Your task to perform on an android device: Open calendar and show me the first week of next month Image 0: 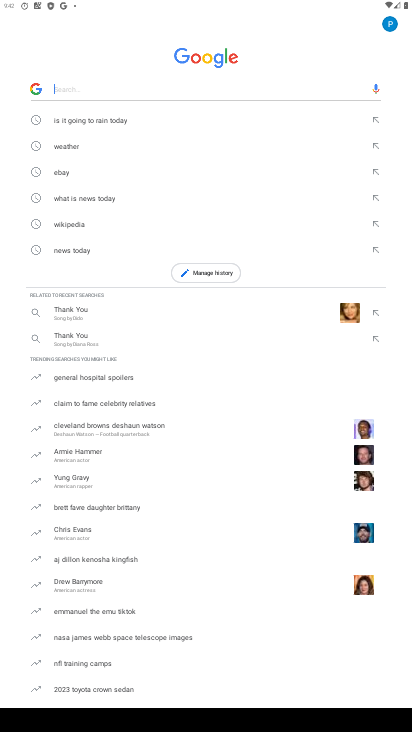
Step 0: press home button
Your task to perform on an android device: Open calendar and show me the first week of next month Image 1: 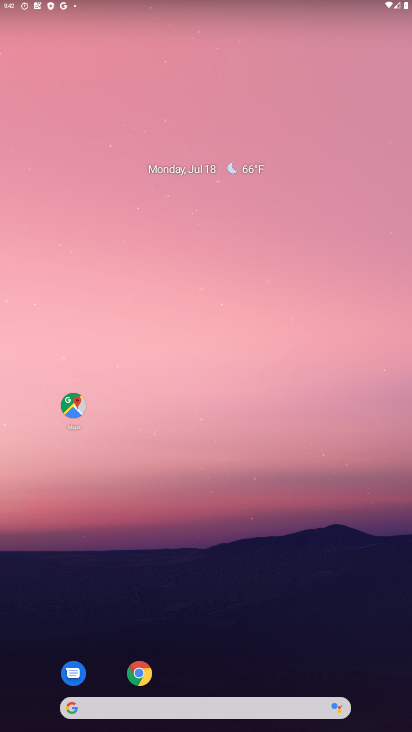
Step 1: drag from (214, 651) to (250, 61)
Your task to perform on an android device: Open calendar and show me the first week of next month Image 2: 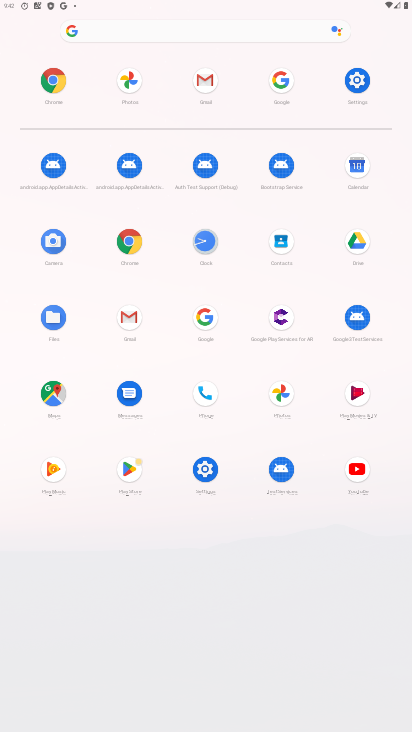
Step 2: click (358, 165)
Your task to perform on an android device: Open calendar and show me the first week of next month Image 3: 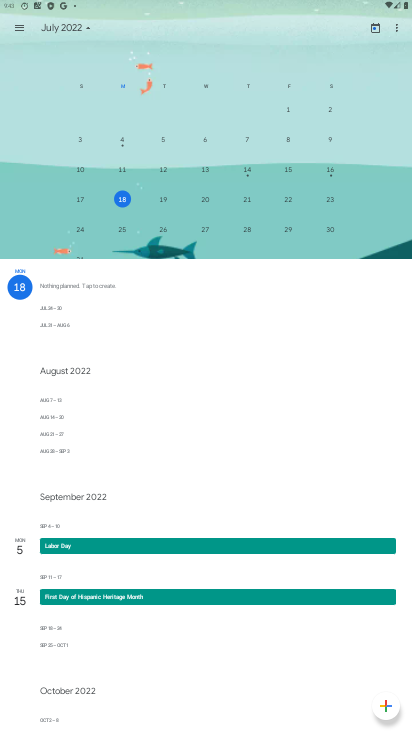
Step 3: drag from (361, 245) to (0, 201)
Your task to perform on an android device: Open calendar and show me the first week of next month Image 4: 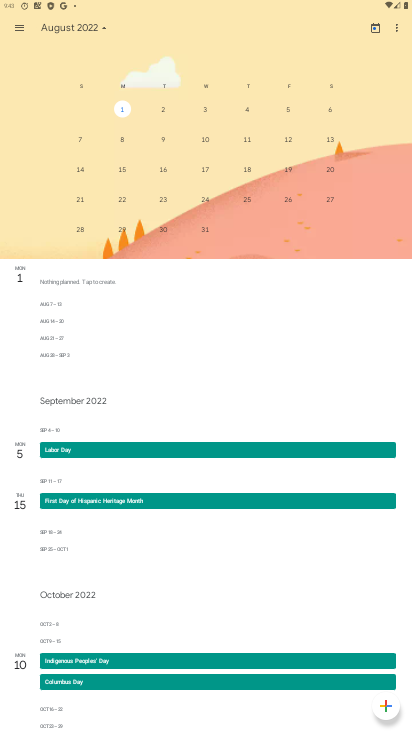
Step 4: click (207, 109)
Your task to perform on an android device: Open calendar and show me the first week of next month Image 5: 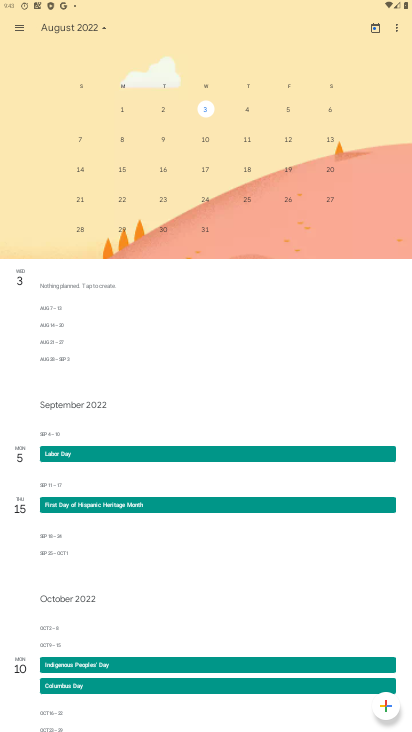
Step 5: task complete